Your task to perform on an android device: Search for energizer triple a on target.com, select the first entry, add it to the cart, then select checkout. Image 0: 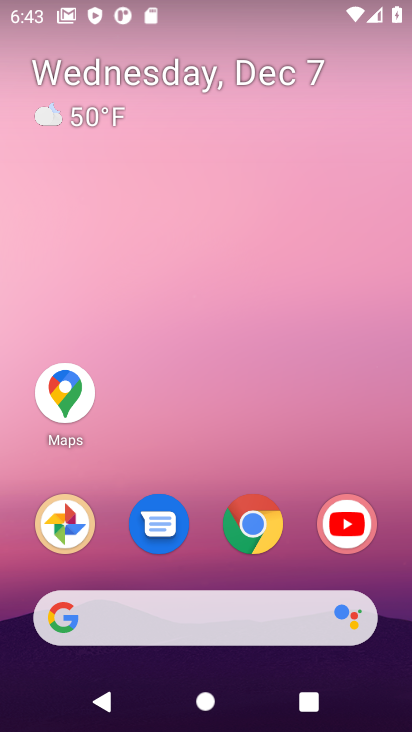
Step 0: click (244, 522)
Your task to perform on an android device: Search for energizer triple a on target.com, select the first entry, add it to the cart, then select checkout. Image 1: 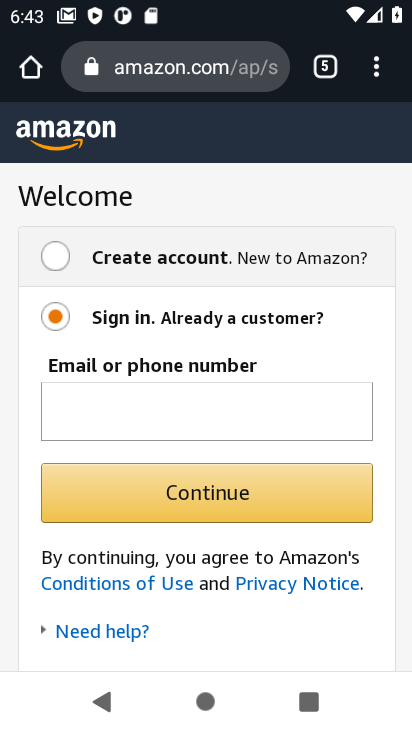
Step 1: click (329, 79)
Your task to perform on an android device: Search for energizer triple a on target.com, select the first entry, add it to the cart, then select checkout. Image 2: 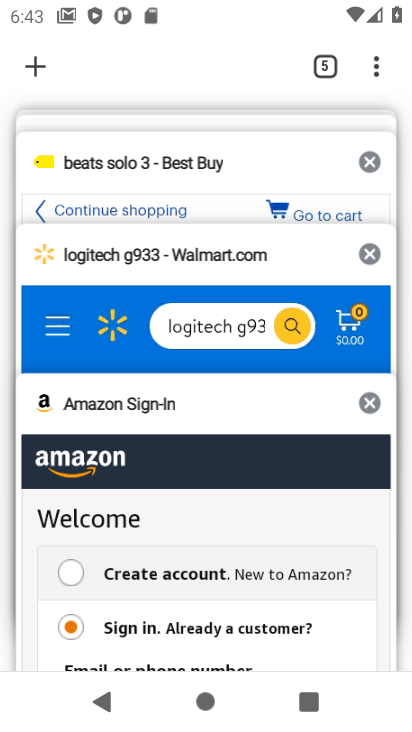
Step 2: drag from (244, 126) to (230, 343)
Your task to perform on an android device: Search for energizer triple a on target.com, select the first entry, add it to the cart, then select checkout. Image 3: 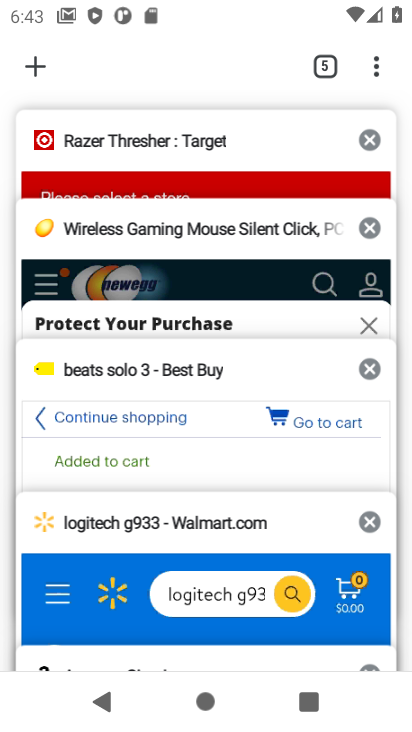
Step 3: click (223, 136)
Your task to perform on an android device: Search for energizer triple a on target.com, select the first entry, add it to the cart, then select checkout. Image 4: 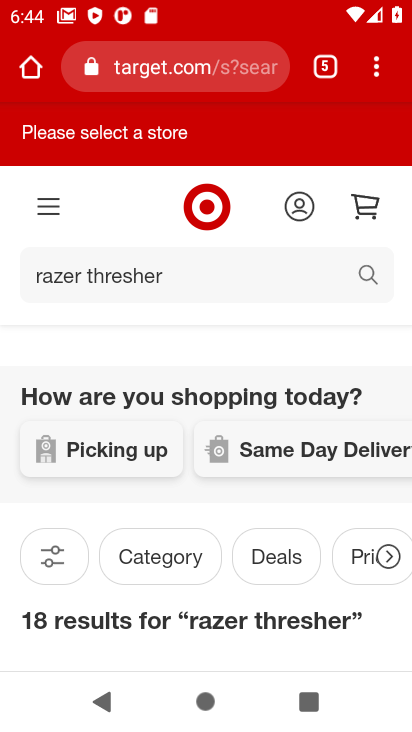
Step 4: click (178, 273)
Your task to perform on an android device: Search for energizer triple a on target.com, select the first entry, add it to the cart, then select checkout. Image 5: 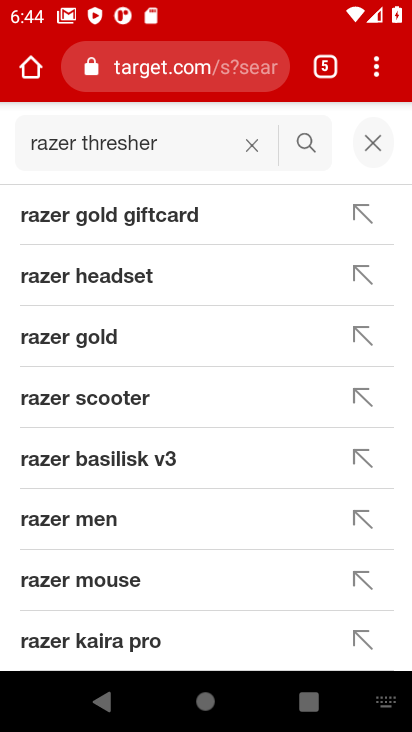
Step 5: click (257, 149)
Your task to perform on an android device: Search for energizer triple a on target.com, select the first entry, add it to the cart, then select checkout. Image 6: 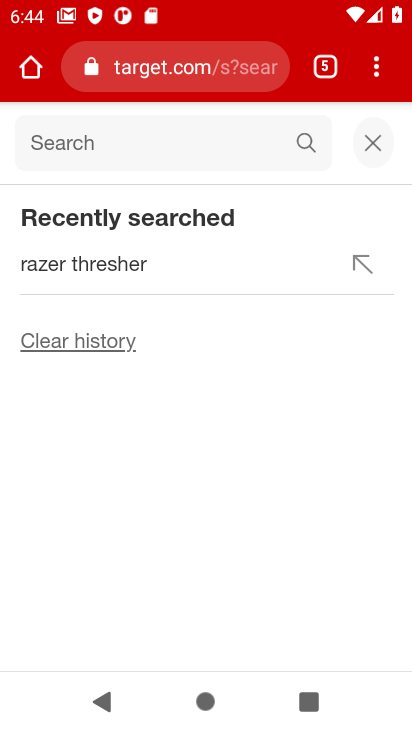
Step 6: type "energizer triple a "
Your task to perform on an android device: Search for energizer triple a on target.com, select the first entry, add it to the cart, then select checkout. Image 7: 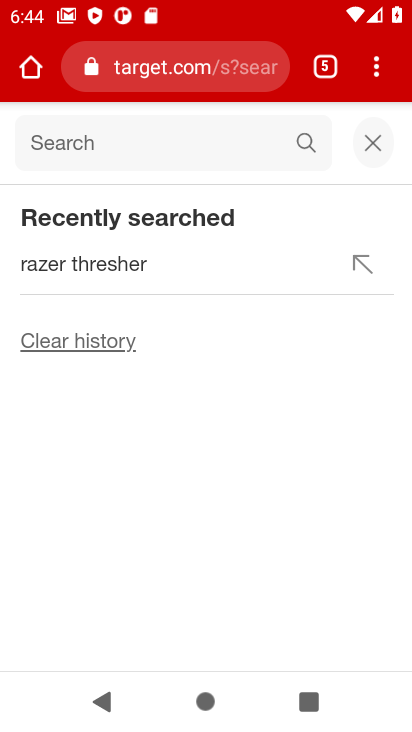
Step 7: click (141, 145)
Your task to perform on an android device: Search for energizer triple a on target.com, select the first entry, add it to the cart, then select checkout. Image 8: 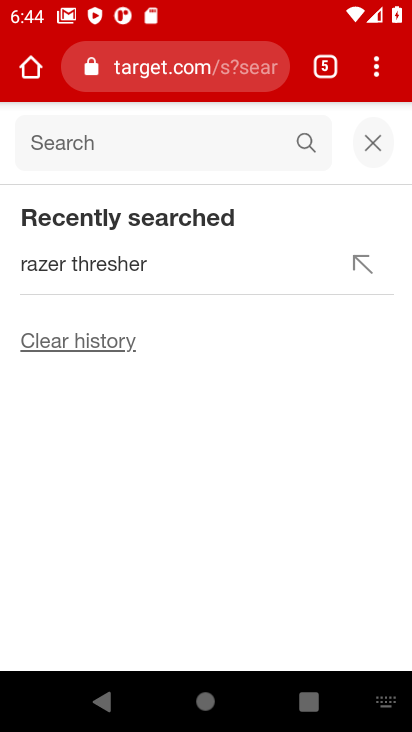
Step 8: type "energizer triple a "
Your task to perform on an android device: Search for energizer triple a on target.com, select the first entry, add it to the cart, then select checkout. Image 9: 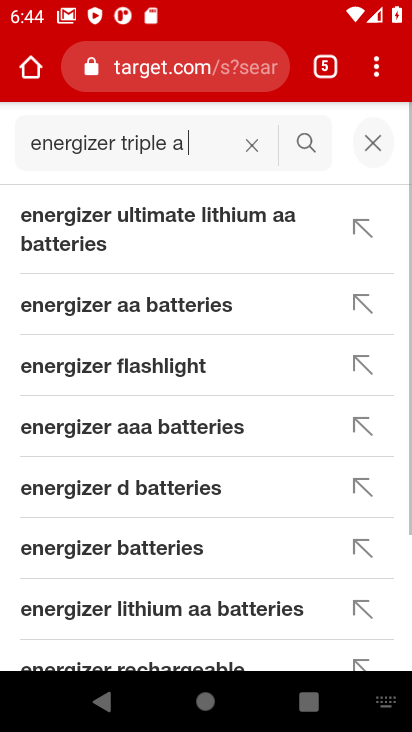
Step 9: click (307, 142)
Your task to perform on an android device: Search for energizer triple a on target.com, select the first entry, add it to the cart, then select checkout. Image 10: 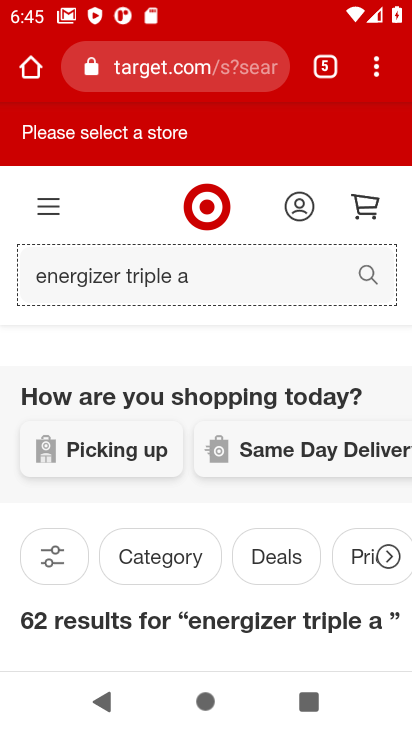
Step 10: drag from (241, 509) to (236, 88)
Your task to perform on an android device: Search for energizer triple a on target.com, select the first entry, add it to the cart, then select checkout. Image 11: 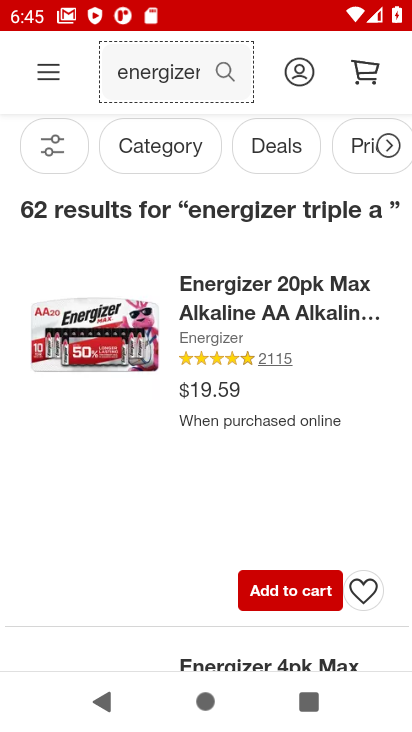
Step 11: click (291, 600)
Your task to perform on an android device: Search for energizer triple a on target.com, select the first entry, add it to the cart, then select checkout. Image 12: 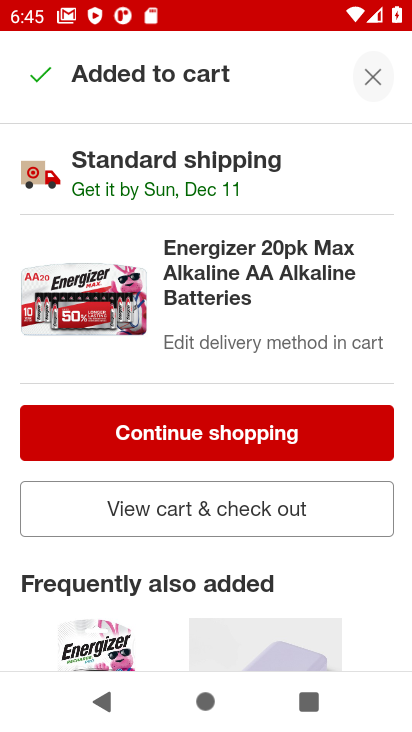
Step 12: task complete